Your task to perform on an android device: change the clock display to digital Image 0: 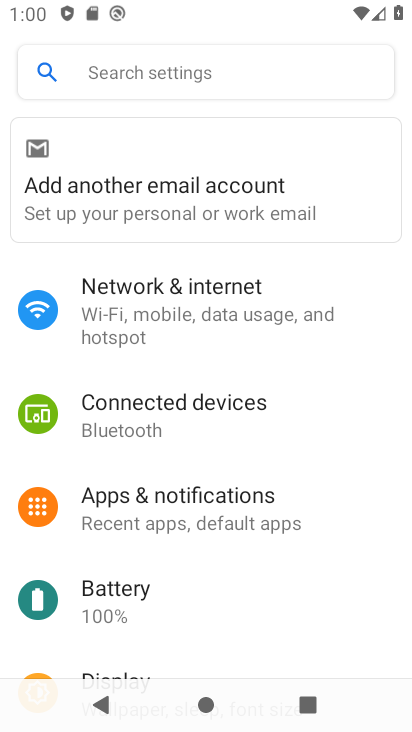
Step 0: press home button
Your task to perform on an android device: change the clock display to digital Image 1: 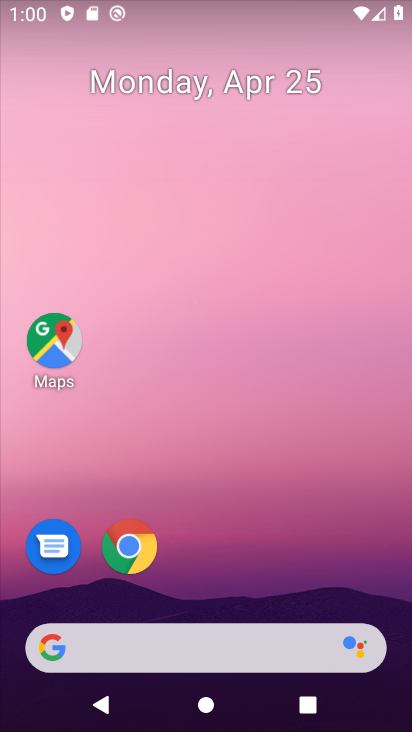
Step 1: drag from (185, 602) to (161, 5)
Your task to perform on an android device: change the clock display to digital Image 2: 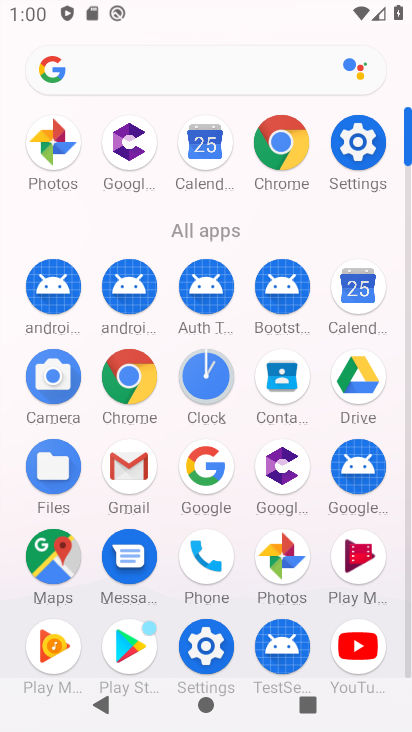
Step 2: click (209, 376)
Your task to perform on an android device: change the clock display to digital Image 3: 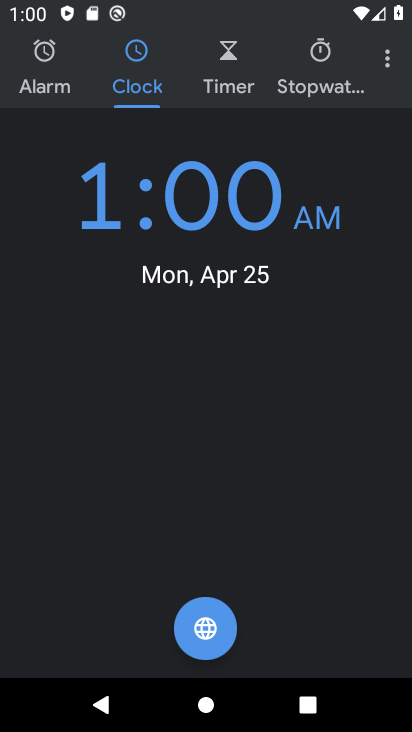
Step 3: click (385, 73)
Your task to perform on an android device: change the clock display to digital Image 4: 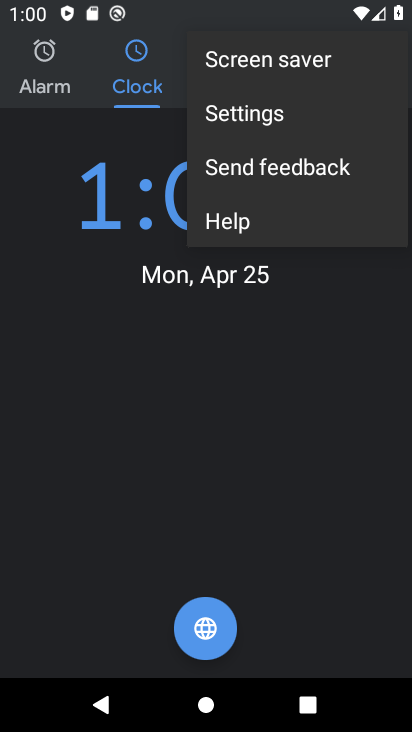
Step 4: click (261, 128)
Your task to perform on an android device: change the clock display to digital Image 5: 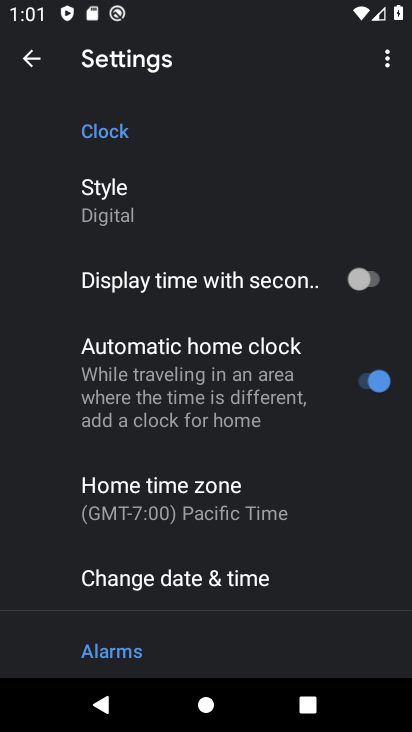
Step 5: click (111, 198)
Your task to perform on an android device: change the clock display to digital Image 6: 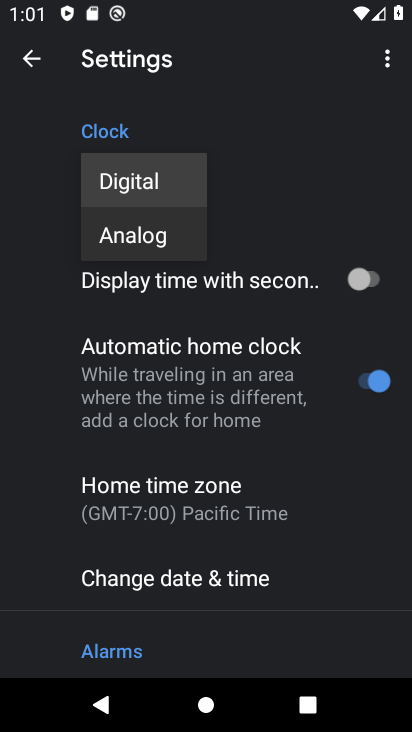
Step 6: click (144, 184)
Your task to perform on an android device: change the clock display to digital Image 7: 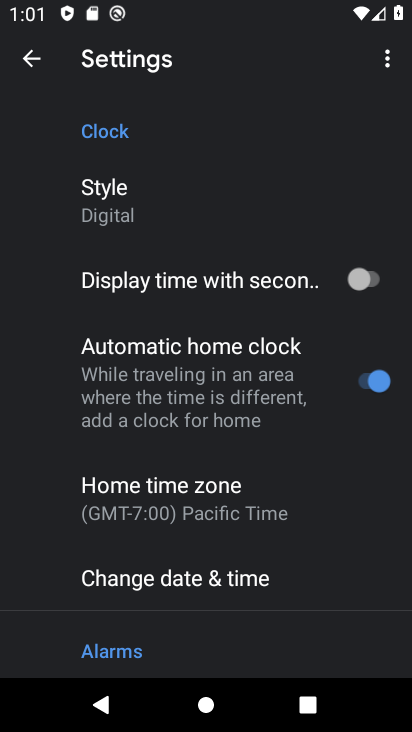
Step 7: task complete